Your task to perform on an android device: Set the phone to "Do not disturb". Image 0: 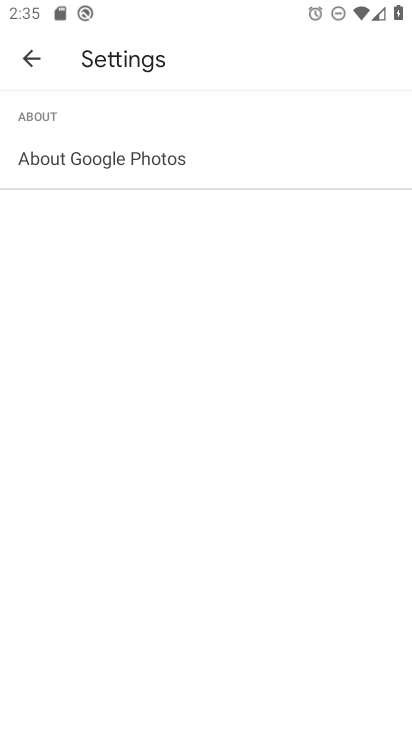
Step 0: drag from (191, 12) to (174, 478)
Your task to perform on an android device: Set the phone to "Do not disturb". Image 1: 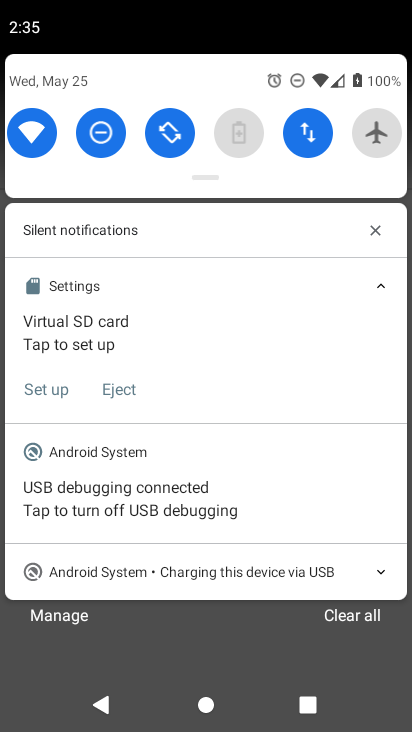
Step 1: task complete